Your task to perform on an android device: turn pop-ups off in chrome Image 0: 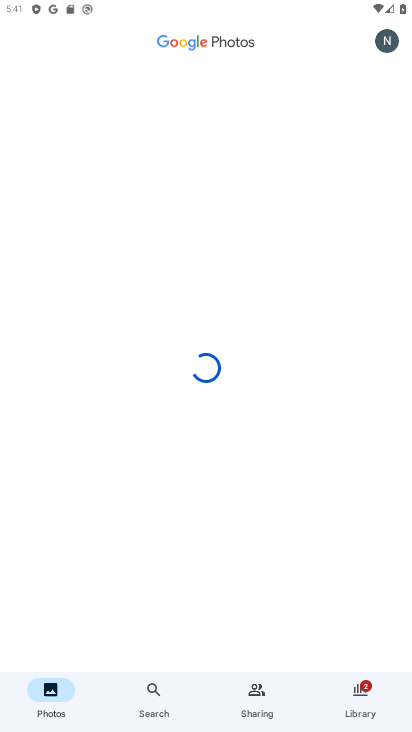
Step 0: press home button
Your task to perform on an android device: turn pop-ups off in chrome Image 1: 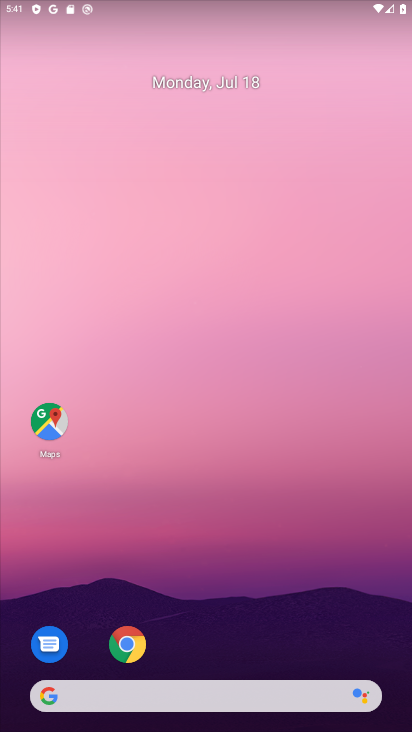
Step 1: click (129, 646)
Your task to perform on an android device: turn pop-ups off in chrome Image 2: 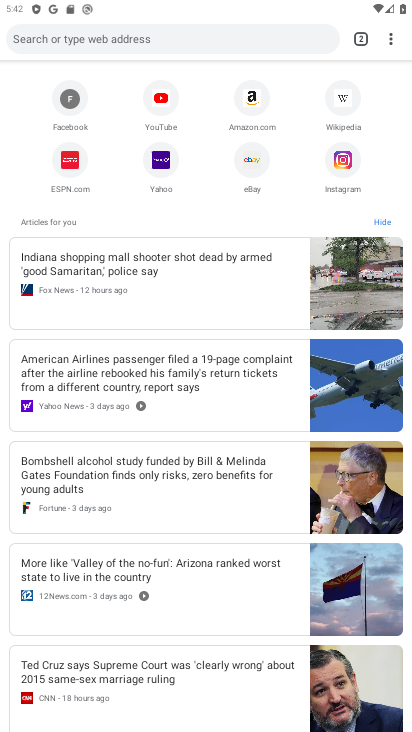
Step 2: click (386, 36)
Your task to perform on an android device: turn pop-ups off in chrome Image 3: 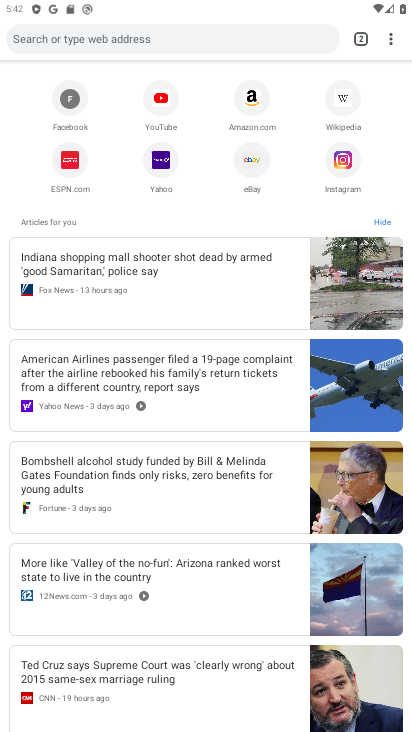
Step 3: drag from (384, 43) to (242, 321)
Your task to perform on an android device: turn pop-ups off in chrome Image 4: 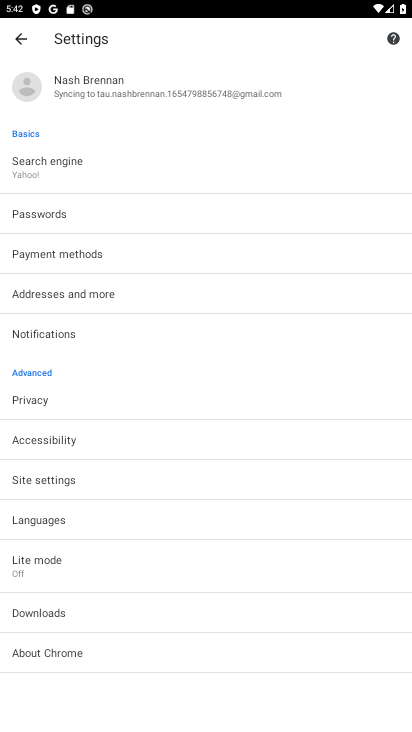
Step 4: click (66, 468)
Your task to perform on an android device: turn pop-ups off in chrome Image 5: 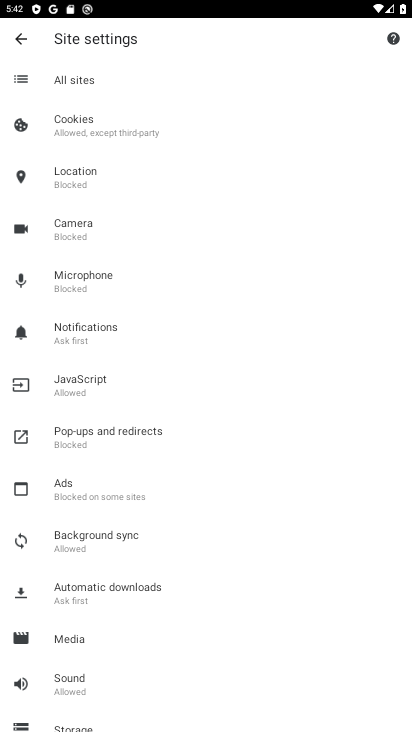
Step 5: click (109, 445)
Your task to perform on an android device: turn pop-ups off in chrome Image 6: 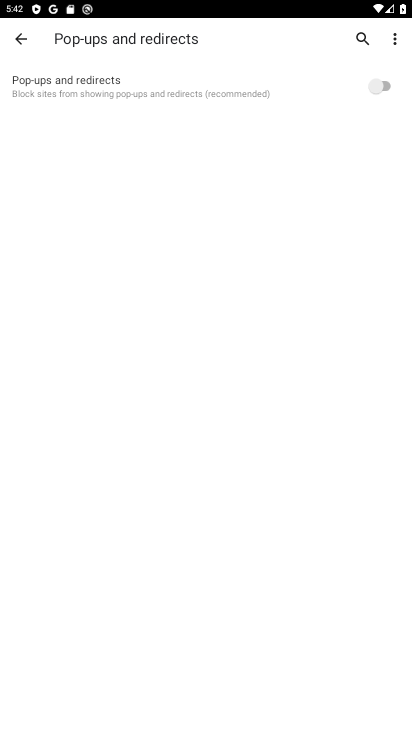
Step 6: task complete